Your task to perform on an android device: Open Android settings Image 0: 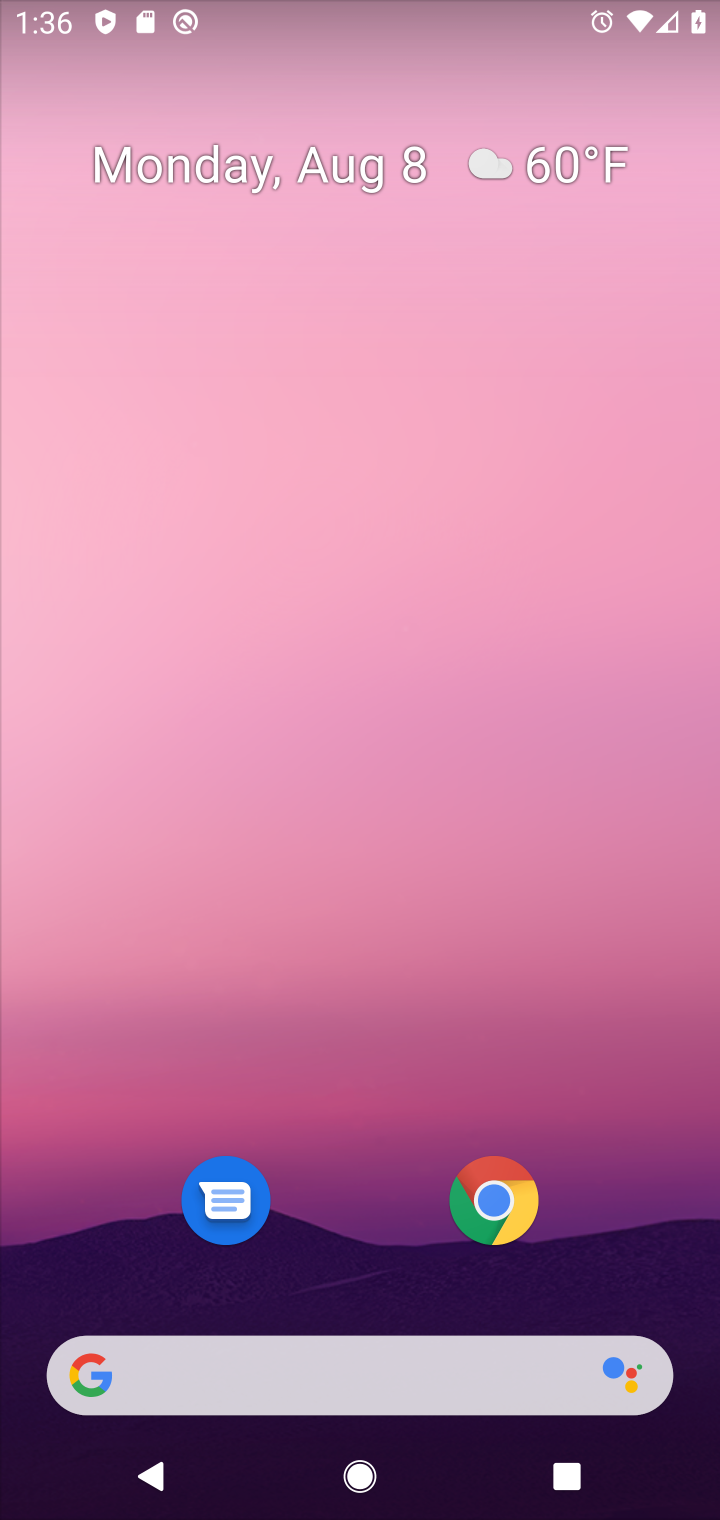
Step 0: drag from (384, 1262) to (437, 61)
Your task to perform on an android device: Open Android settings Image 1: 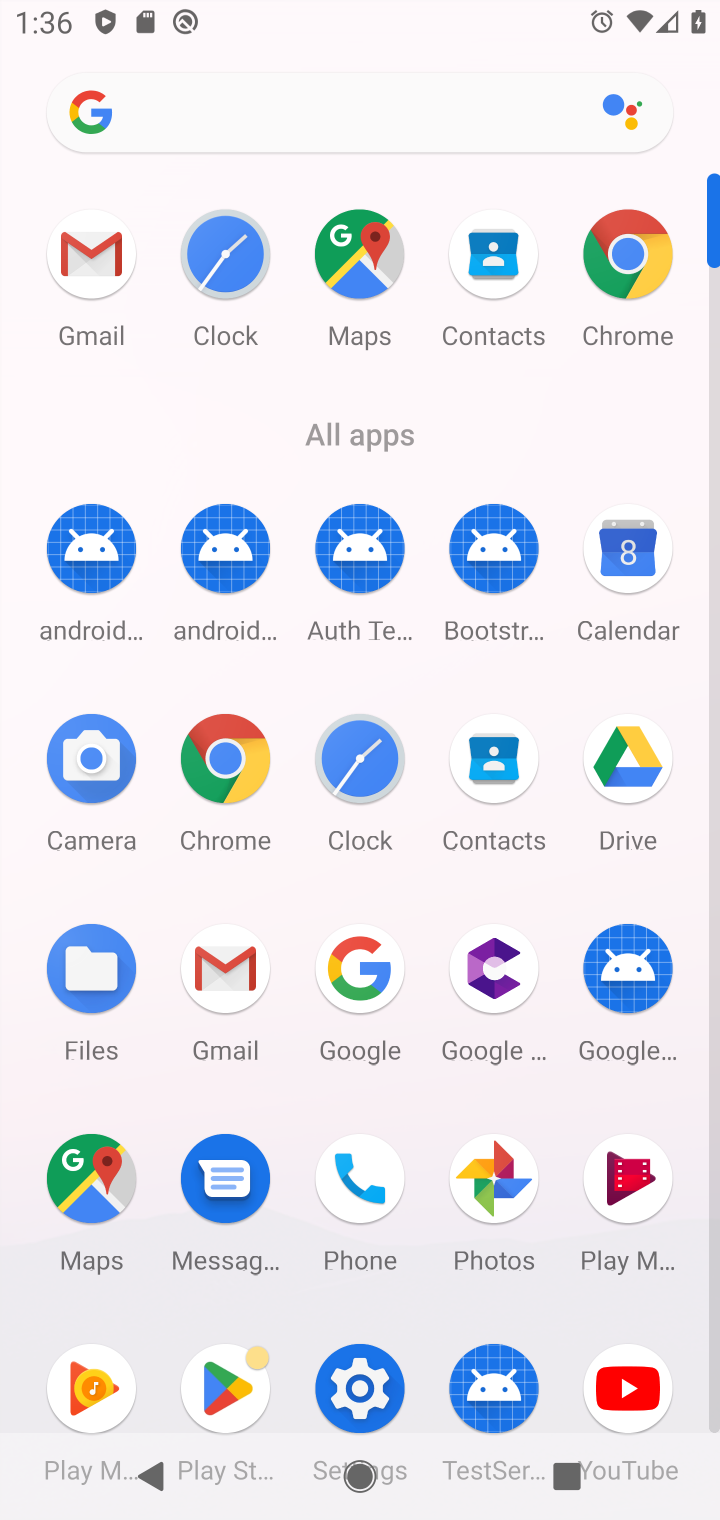
Step 1: click (359, 1368)
Your task to perform on an android device: Open Android settings Image 2: 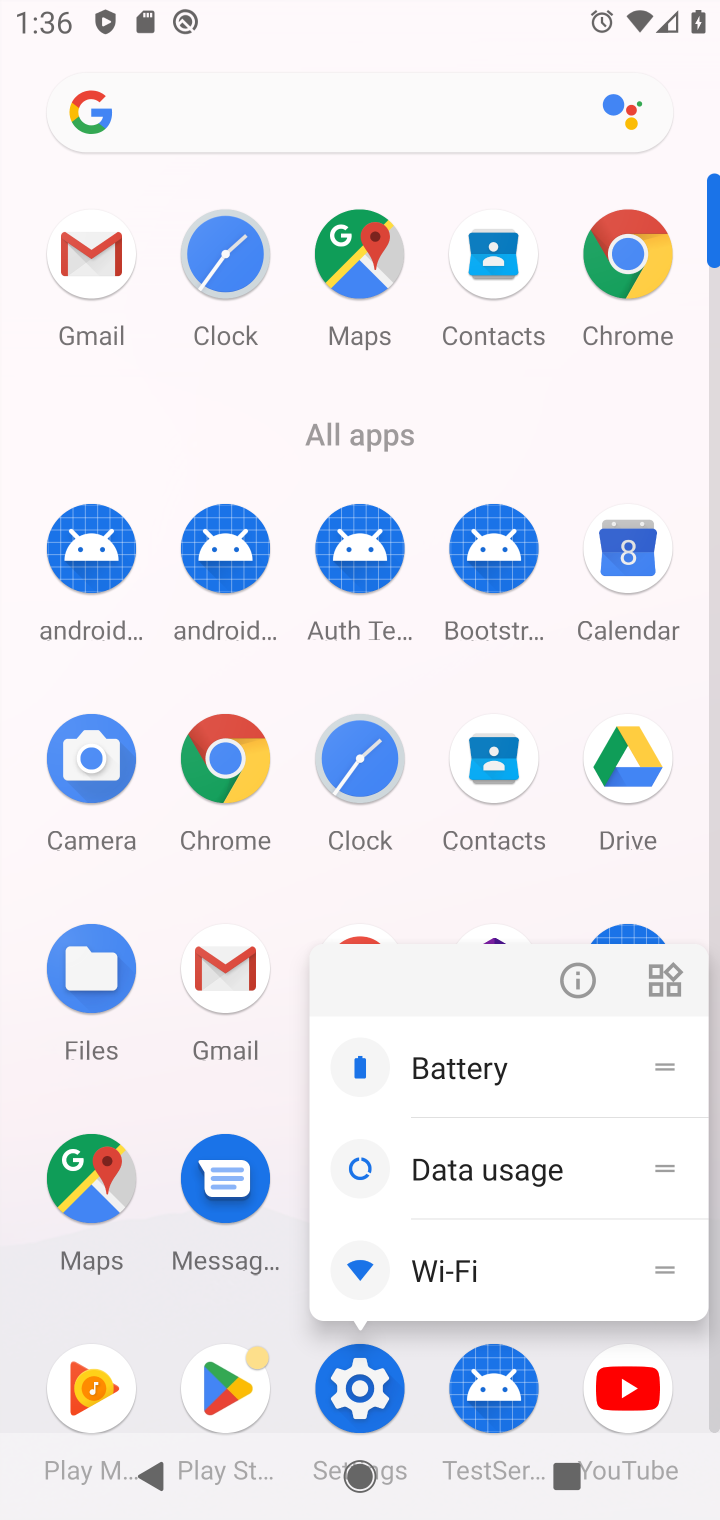
Step 2: click (359, 1368)
Your task to perform on an android device: Open Android settings Image 3: 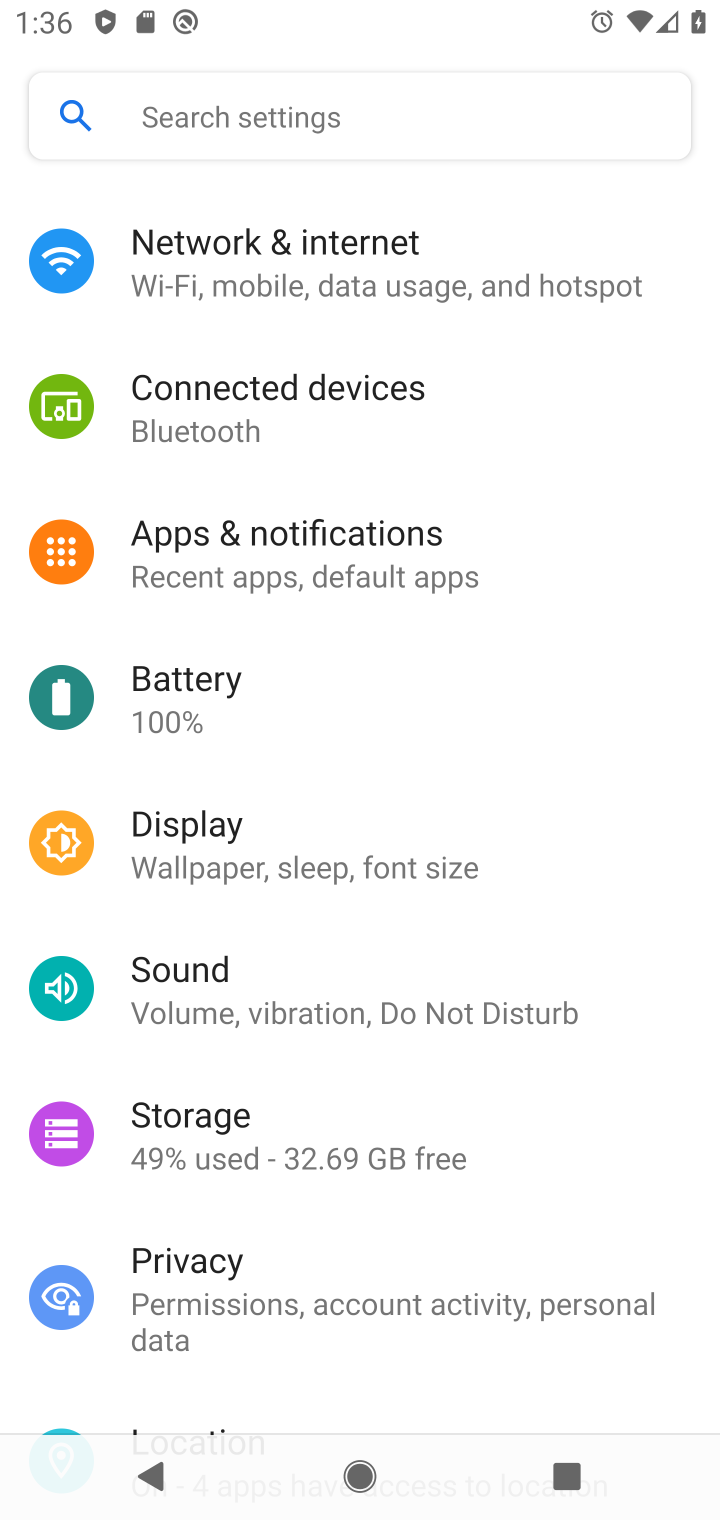
Step 3: drag from (391, 1321) to (555, 97)
Your task to perform on an android device: Open Android settings Image 4: 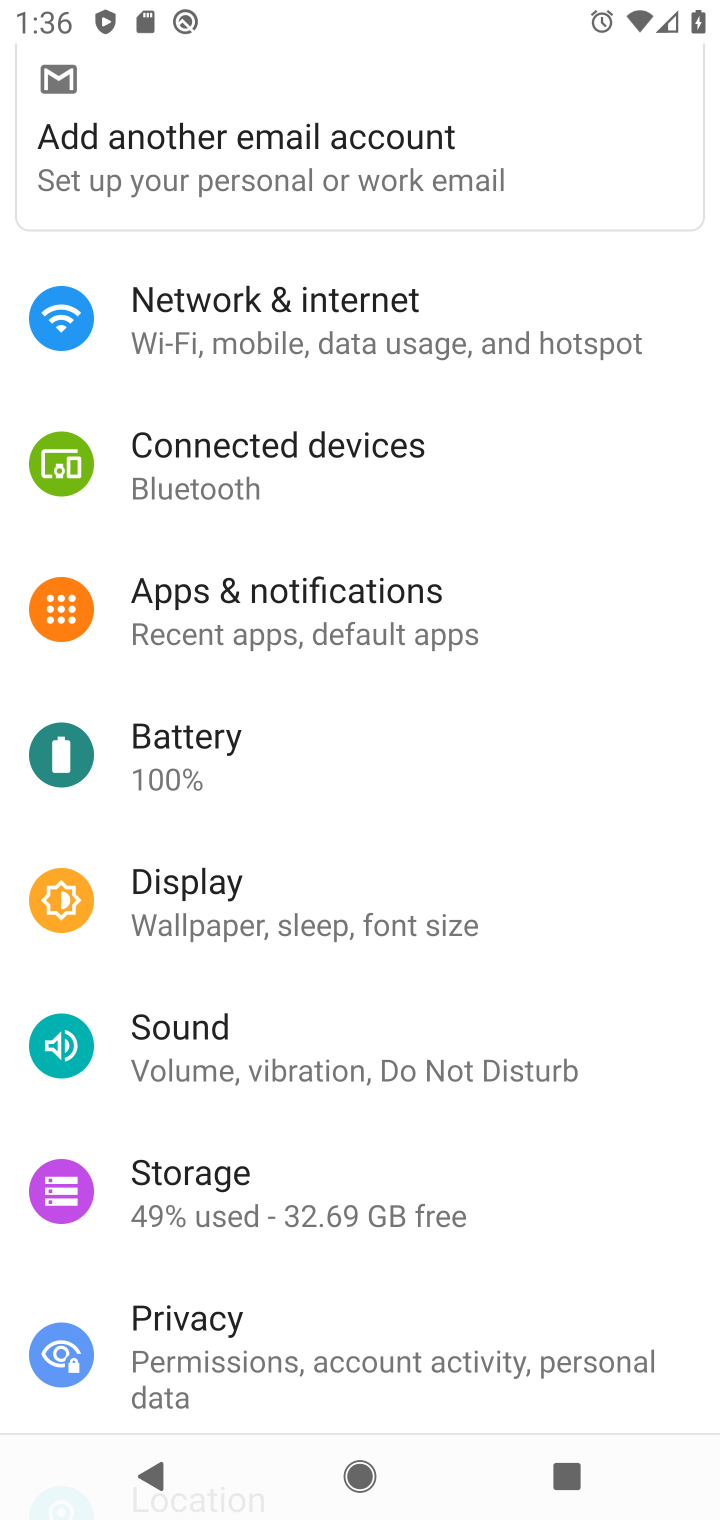
Step 4: drag from (503, 780) to (636, 74)
Your task to perform on an android device: Open Android settings Image 5: 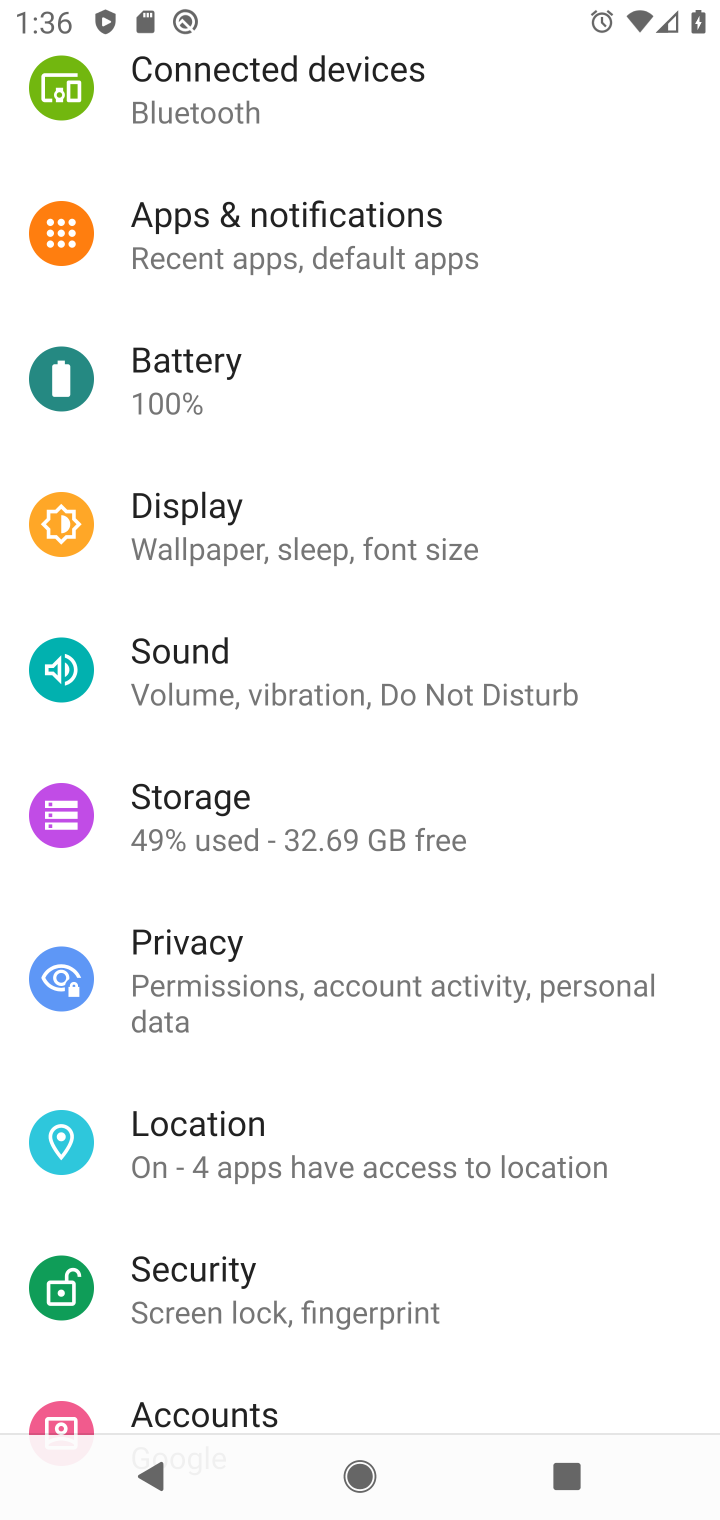
Step 5: drag from (388, 1323) to (370, 250)
Your task to perform on an android device: Open Android settings Image 6: 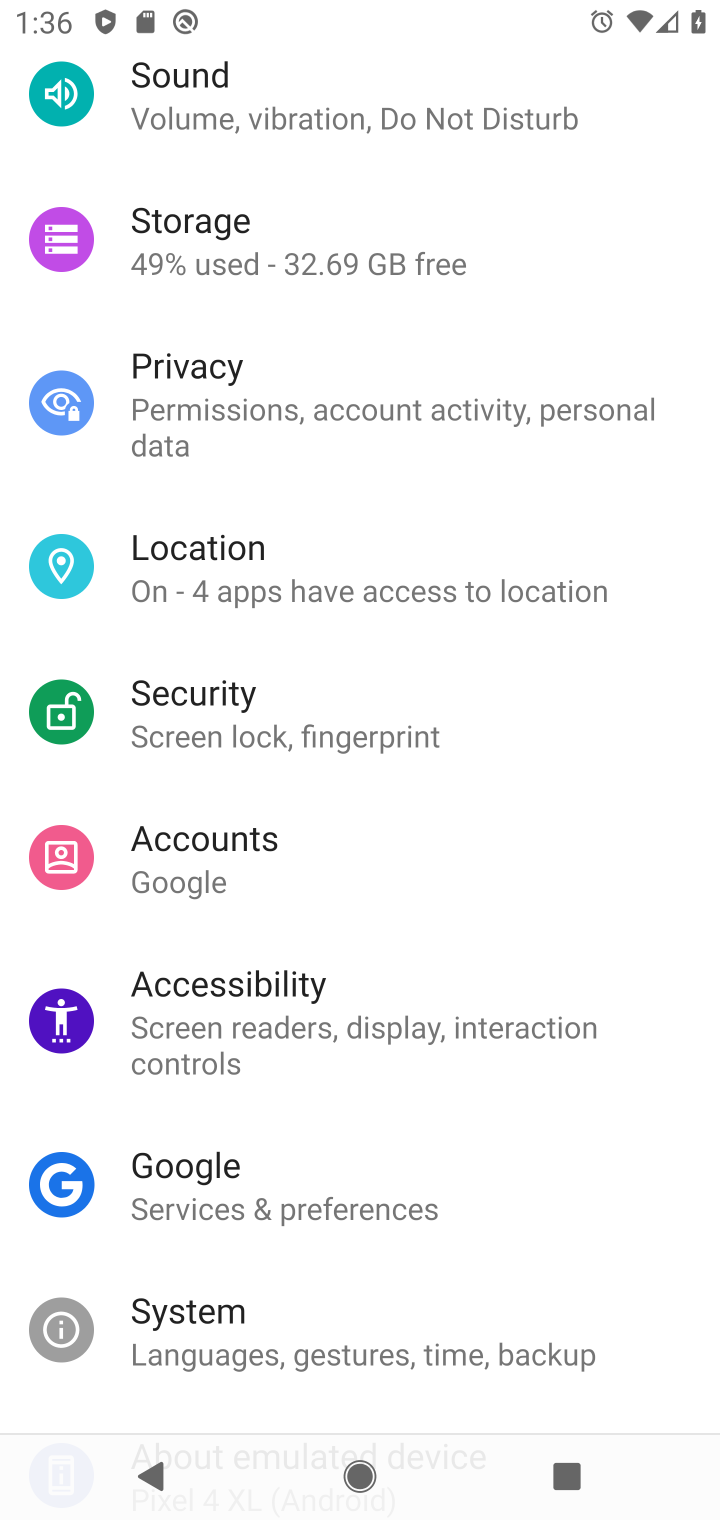
Step 6: drag from (326, 1352) to (381, 408)
Your task to perform on an android device: Open Android settings Image 7: 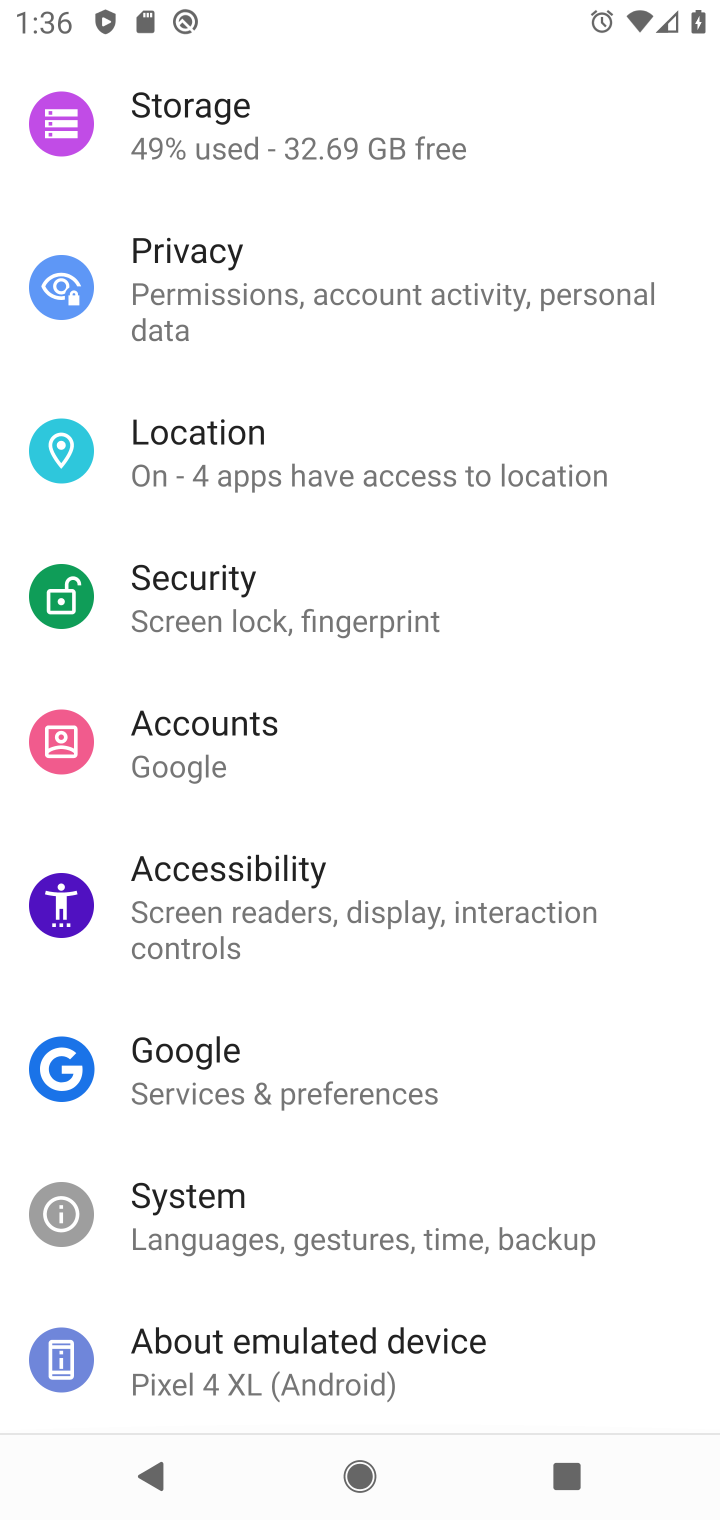
Step 7: click (318, 1352)
Your task to perform on an android device: Open Android settings Image 8: 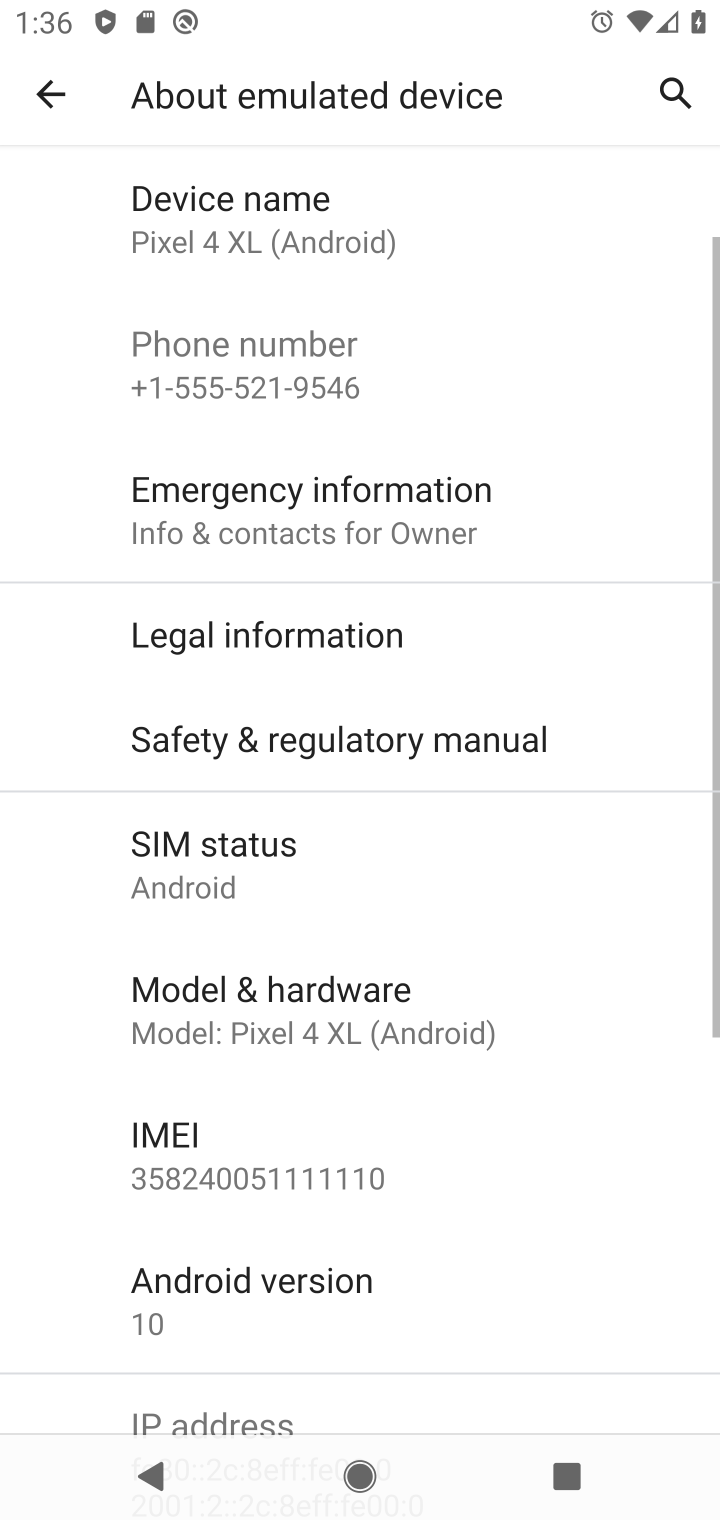
Step 8: task complete